Your task to perform on an android device: Show the shopping cart on amazon. Search for razer blade on amazon, select the first entry, and add it to the cart. Image 0: 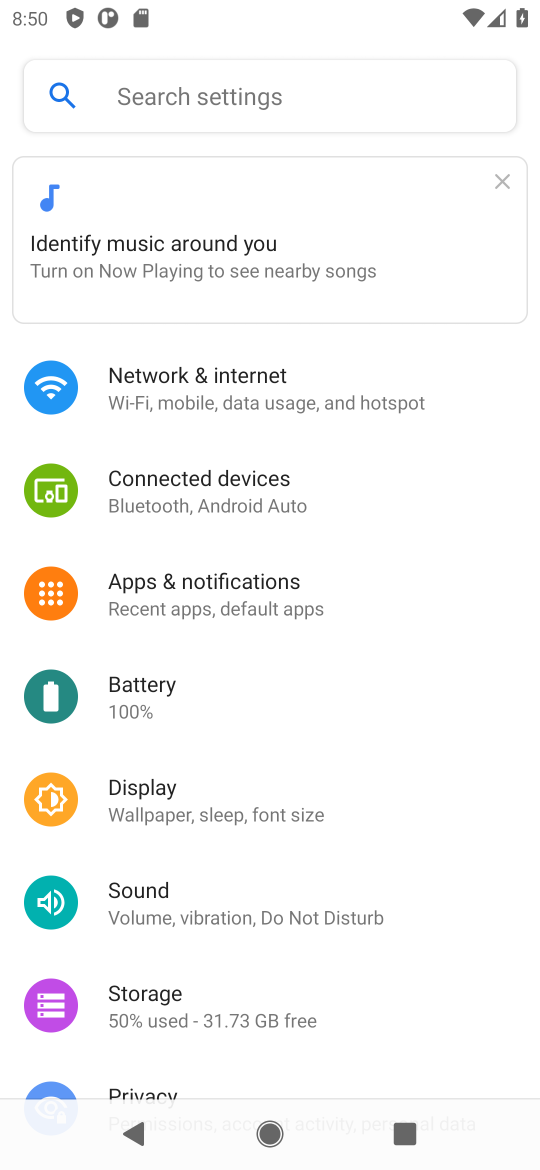
Step 0: press home button
Your task to perform on an android device: Show the shopping cart on amazon. Search for razer blade on amazon, select the first entry, and add it to the cart. Image 1: 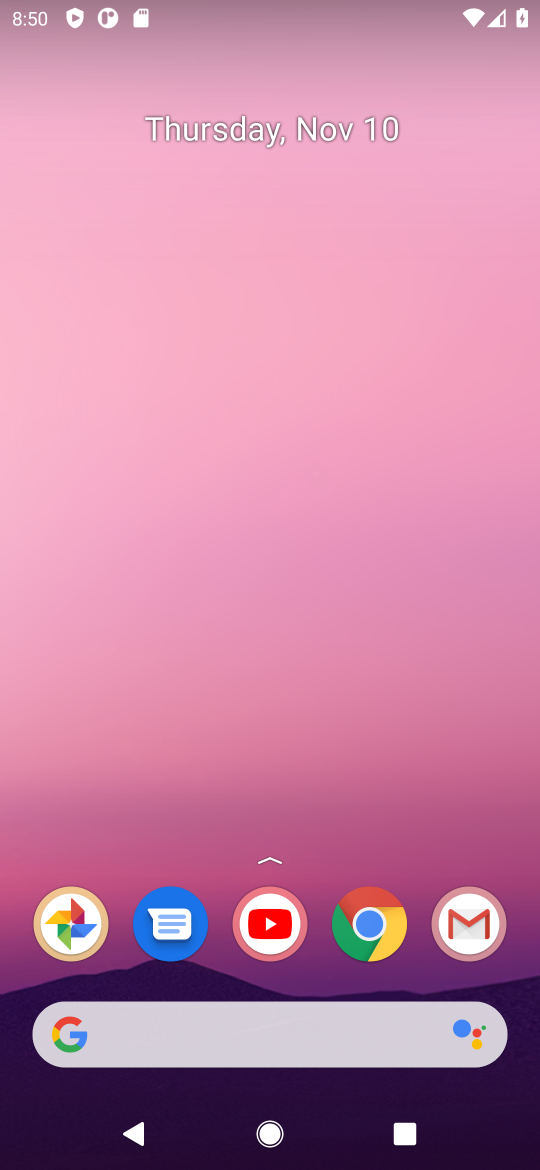
Step 1: click (359, 934)
Your task to perform on an android device: Show the shopping cart on amazon. Search for razer blade on amazon, select the first entry, and add it to the cart. Image 2: 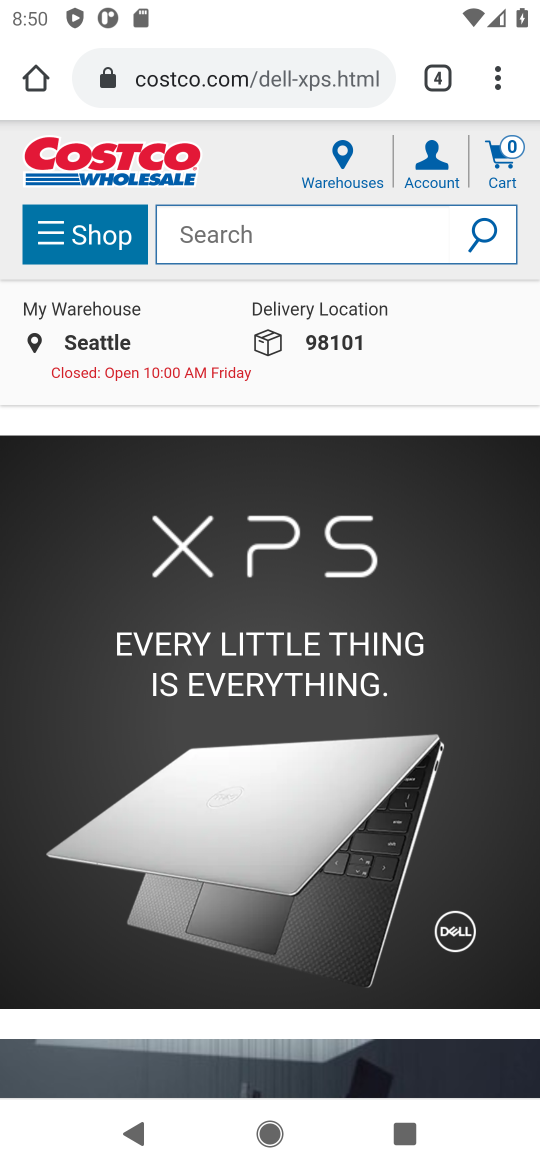
Step 2: click (201, 80)
Your task to perform on an android device: Show the shopping cart on amazon. Search for razer blade on amazon, select the first entry, and add it to the cart. Image 3: 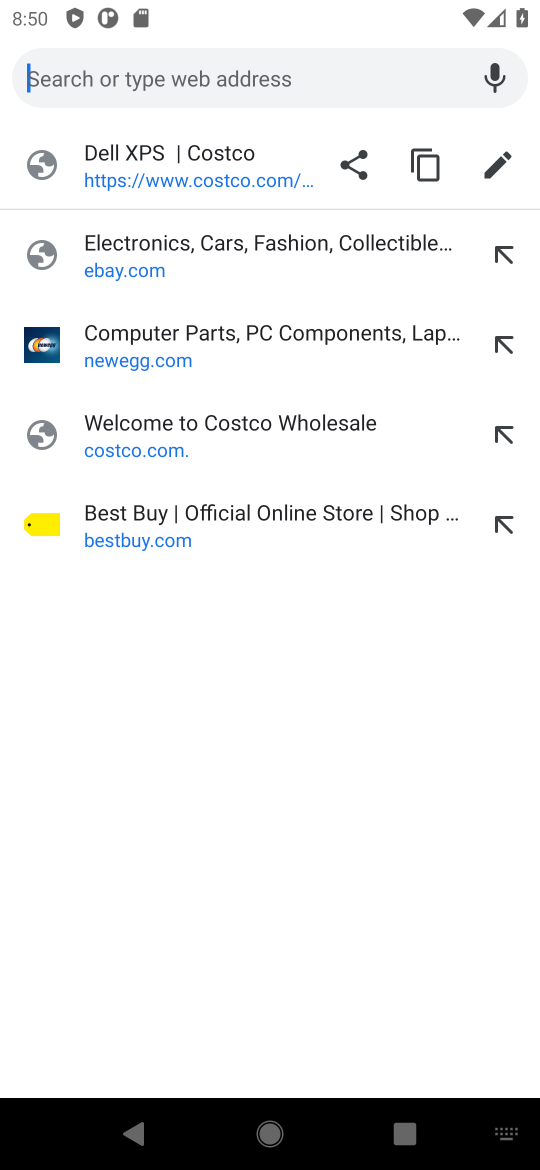
Step 3: type "amazon.com"
Your task to perform on an android device: Show the shopping cart on amazon. Search for razer blade on amazon, select the first entry, and add it to the cart. Image 4: 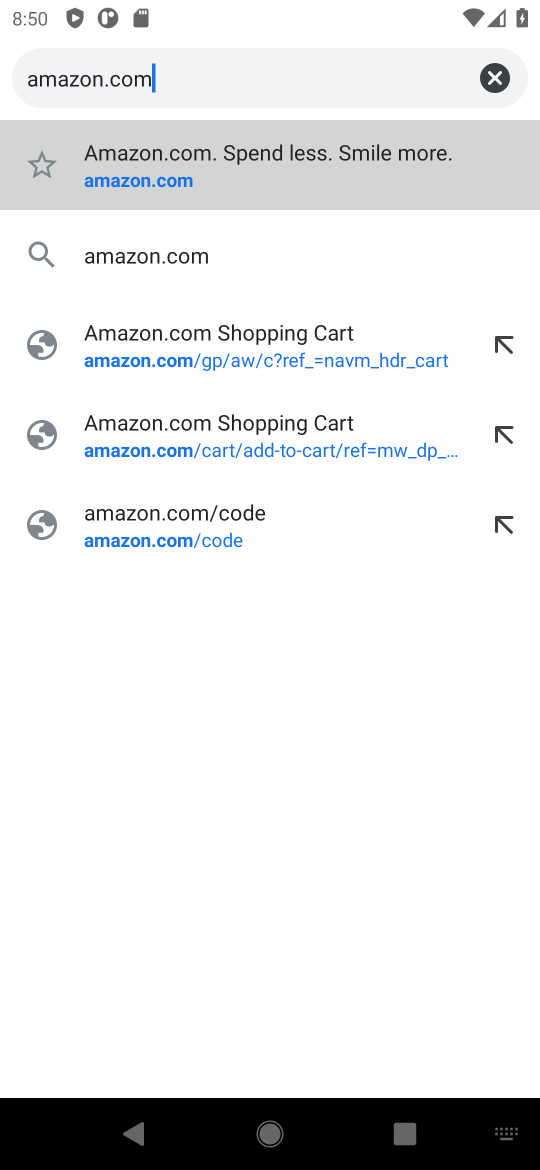
Step 4: click (115, 358)
Your task to perform on an android device: Show the shopping cart on amazon. Search for razer blade on amazon, select the first entry, and add it to the cart. Image 5: 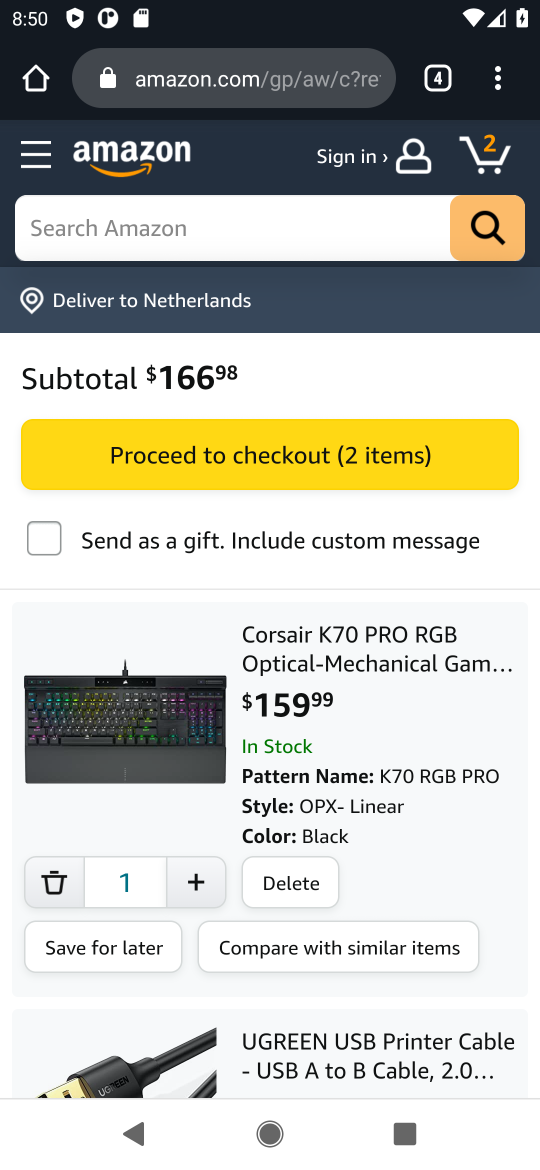
Step 5: drag from (215, 835) to (221, 548)
Your task to perform on an android device: Show the shopping cart on amazon. Search for razer blade on amazon, select the first entry, and add it to the cart. Image 6: 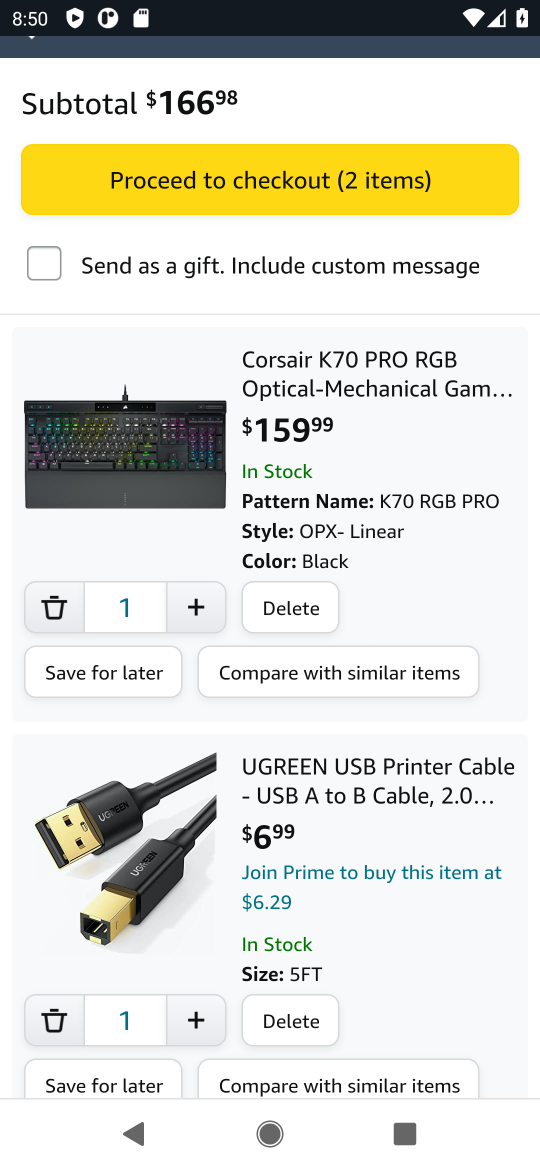
Step 6: drag from (356, 464) to (382, 722)
Your task to perform on an android device: Show the shopping cart on amazon. Search for razer blade on amazon, select the first entry, and add it to the cart. Image 7: 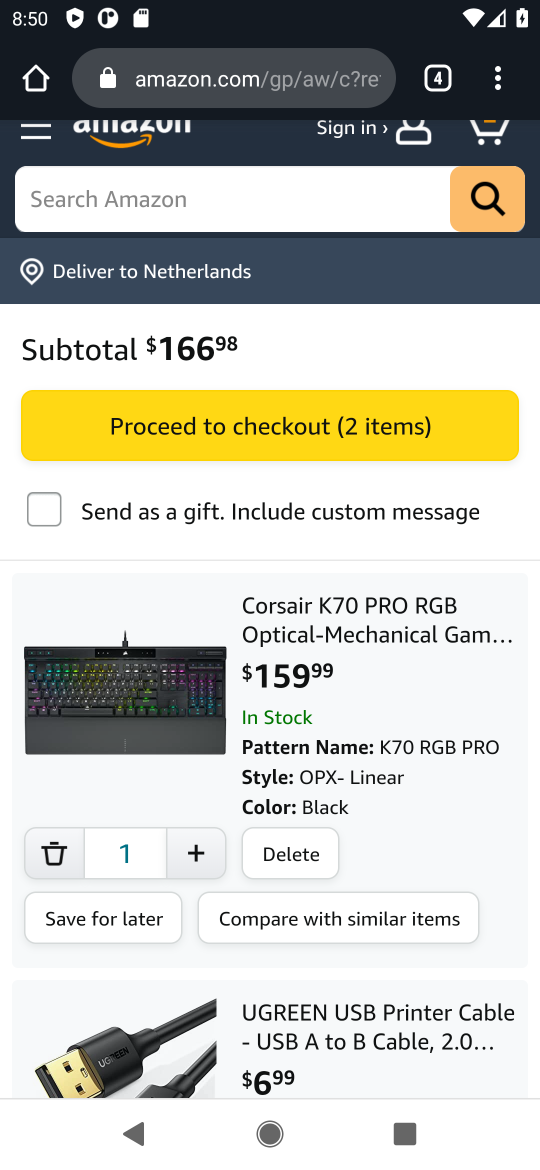
Step 7: click (303, 204)
Your task to perform on an android device: Show the shopping cart on amazon. Search for razer blade on amazon, select the first entry, and add it to the cart. Image 8: 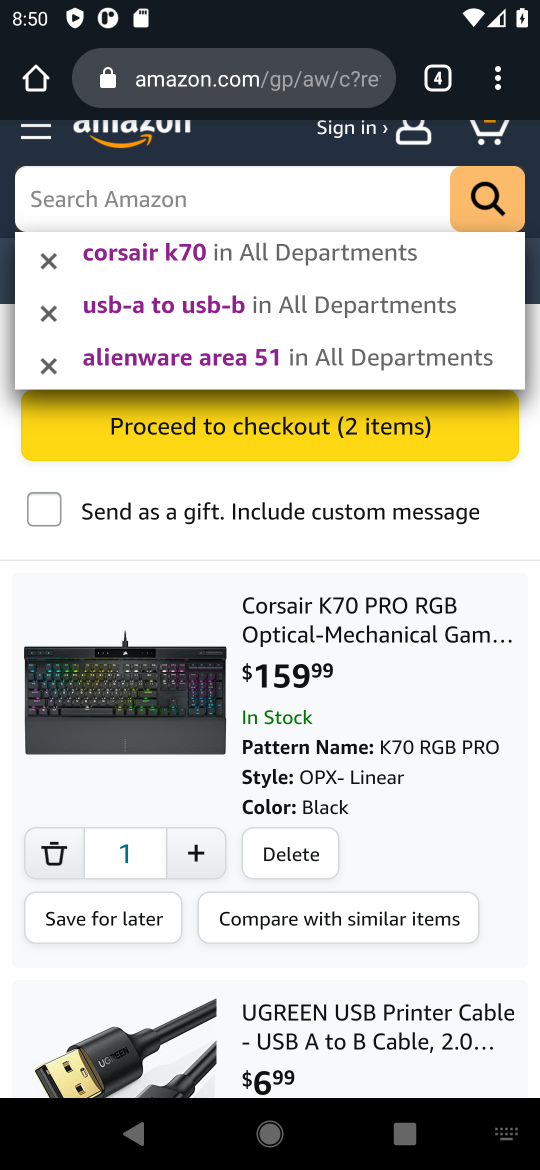
Step 8: type "razer blade"
Your task to perform on an android device: Show the shopping cart on amazon. Search for razer blade on amazon, select the first entry, and add it to the cart. Image 9: 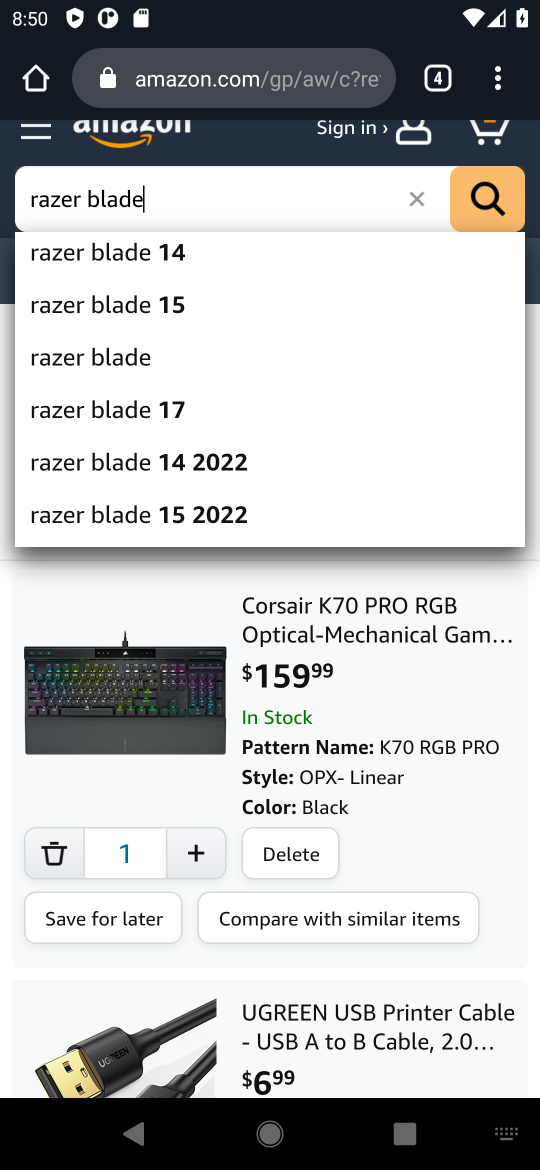
Step 9: click (88, 355)
Your task to perform on an android device: Show the shopping cart on amazon. Search for razer blade on amazon, select the first entry, and add it to the cart. Image 10: 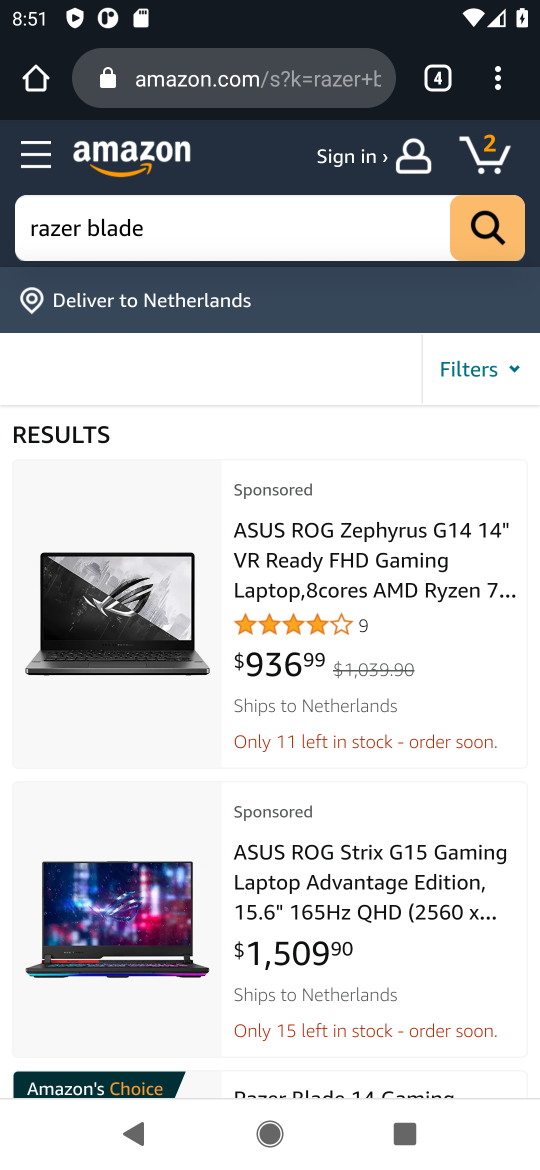
Step 10: task complete